Your task to perform on an android device: open wifi settings Image 0: 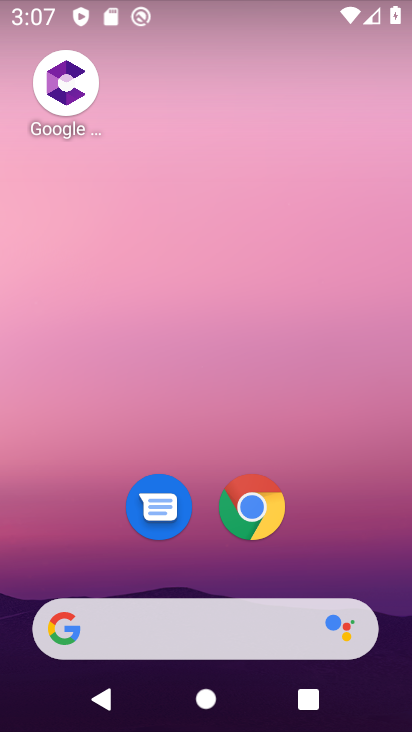
Step 0: drag from (187, 553) to (322, 33)
Your task to perform on an android device: open wifi settings Image 1: 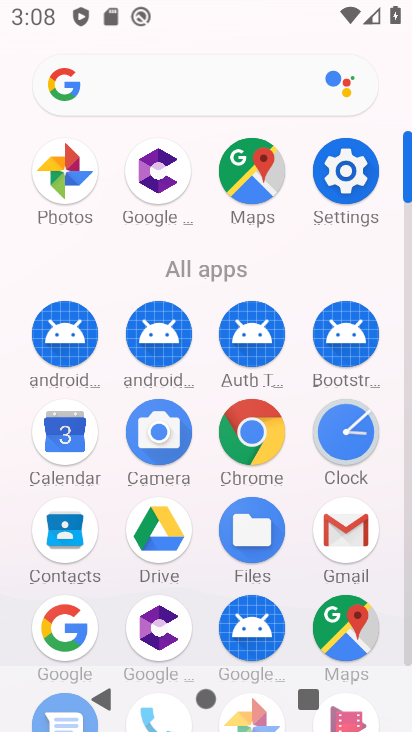
Step 1: click (352, 167)
Your task to perform on an android device: open wifi settings Image 2: 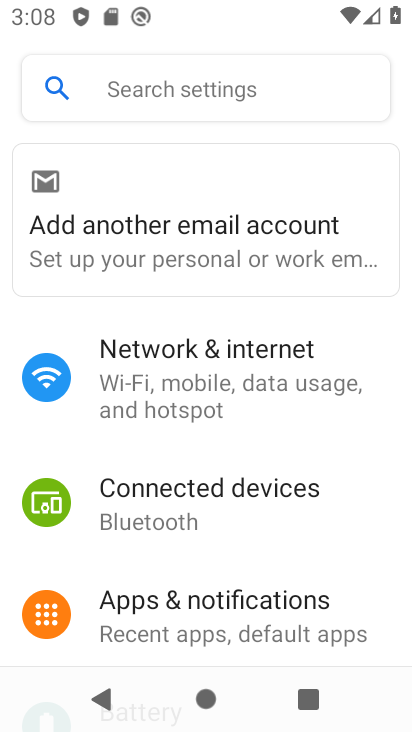
Step 2: click (161, 363)
Your task to perform on an android device: open wifi settings Image 3: 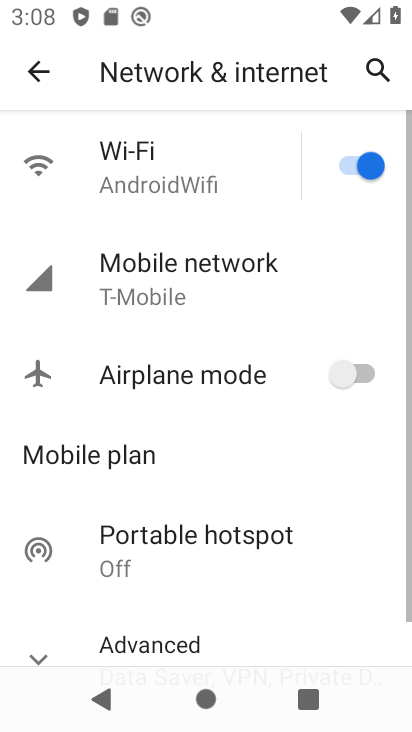
Step 3: click (150, 192)
Your task to perform on an android device: open wifi settings Image 4: 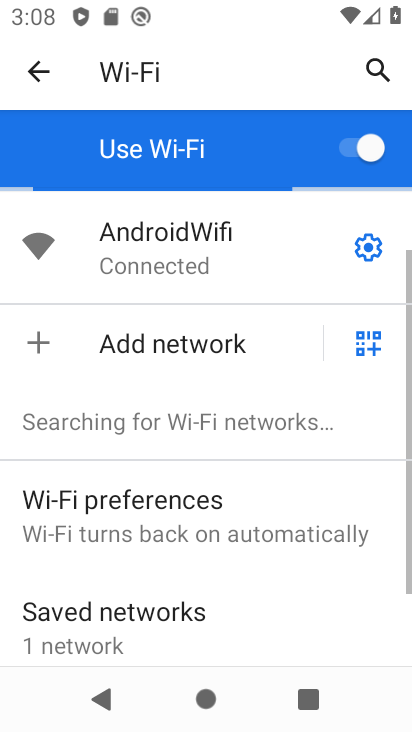
Step 4: task complete